Your task to perform on an android device: turn off improve location accuracy Image 0: 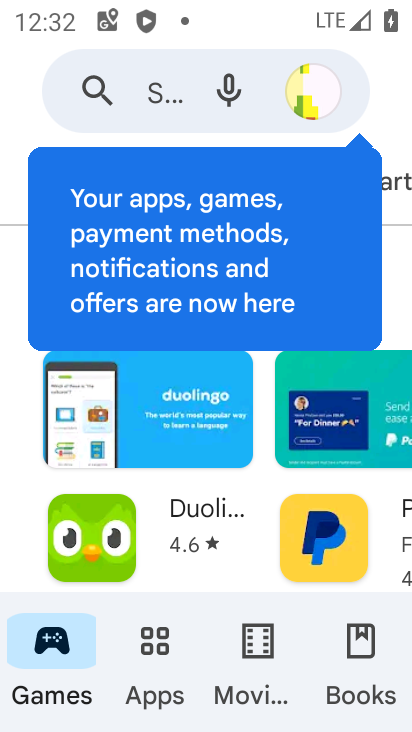
Step 0: press home button
Your task to perform on an android device: turn off improve location accuracy Image 1: 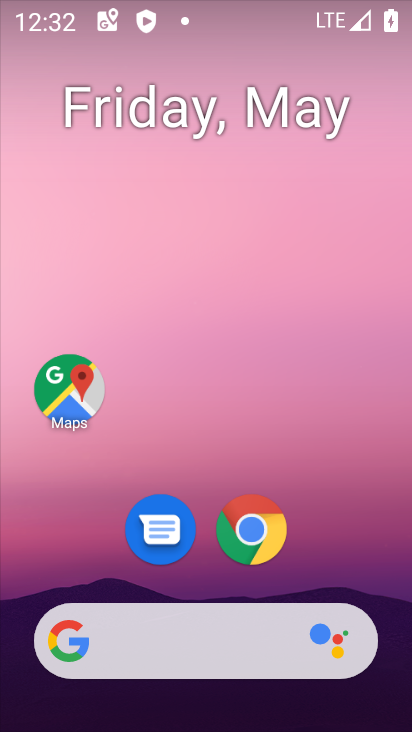
Step 1: drag from (318, 546) to (71, 103)
Your task to perform on an android device: turn off improve location accuracy Image 2: 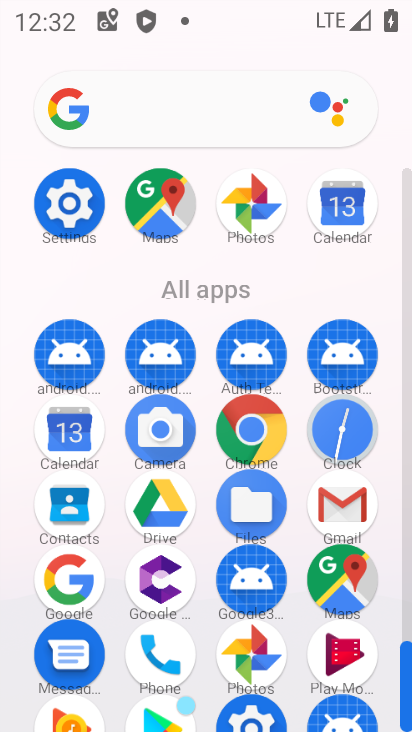
Step 2: click (66, 232)
Your task to perform on an android device: turn off improve location accuracy Image 3: 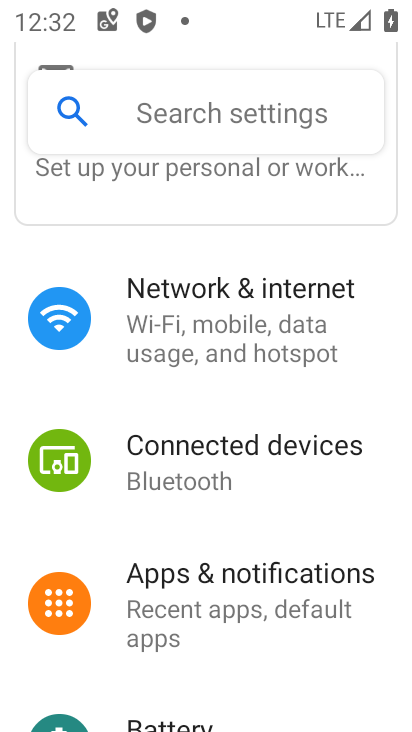
Step 3: drag from (217, 637) to (206, 315)
Your task to perform on an android device: turn off improve location accuracy Image 4: 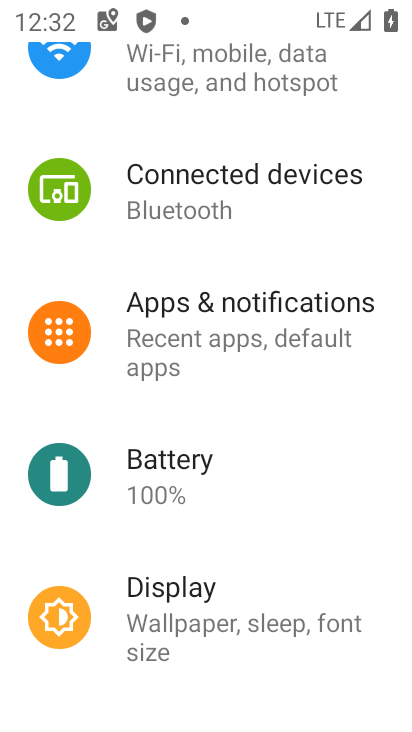
Step 4: drag from (313, 651) to (292, 281)
Your task to perform on an android device: turn off improve location accuracy Image 5: 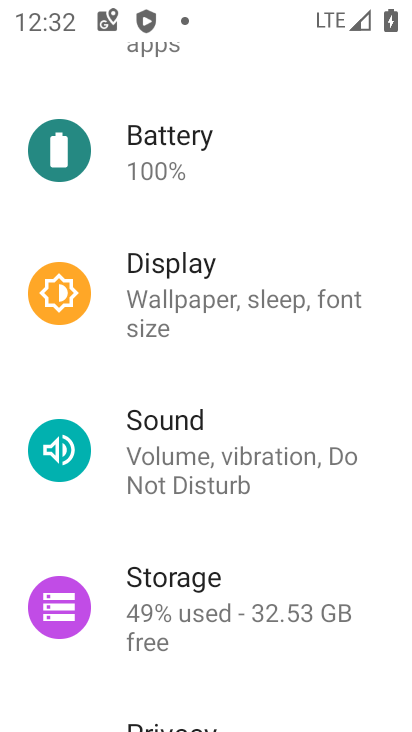
Step 5: drag from (302, 609) to (304, 296)
Your task to perform on an android device: turn off improve location accuracy Image 6: 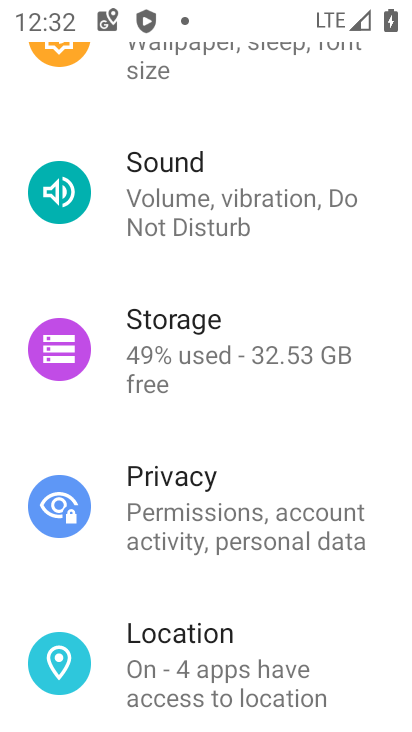
Step 6: click (158, 689)
Your task to perform on an android device: turn off improve location accuracy Image 7: 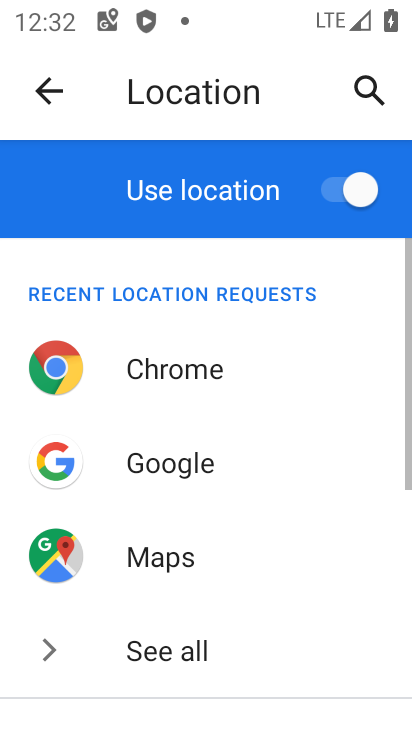
Step 7: drag from (162, 686) to (150, 296)
Your task to perform on an android device: turn off improve location accuracy Image 8: 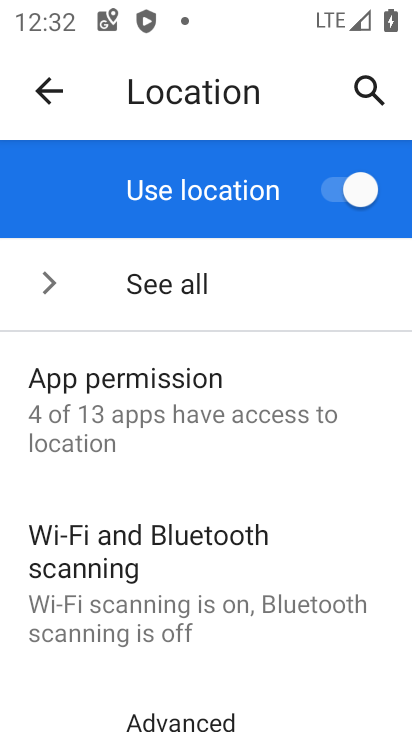
Step 8: drag from (167, 635) to (158, 344)
Your task to perform on an android device: turn off improve location accuracy Image 9: 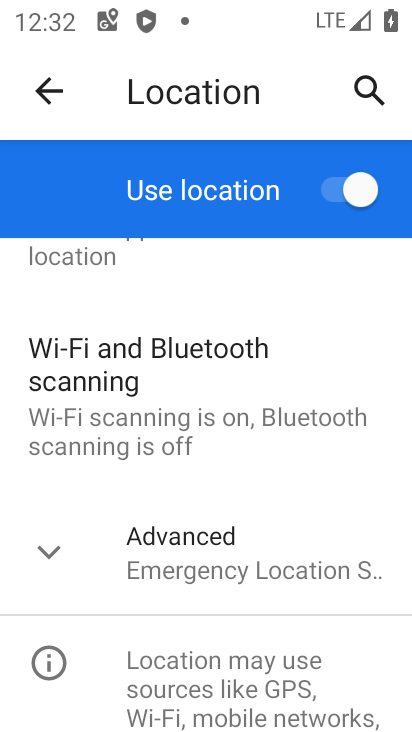
Step 9: click (185, 568)
Your task to perform on an android device: turn off improve location accuracy Image 10: 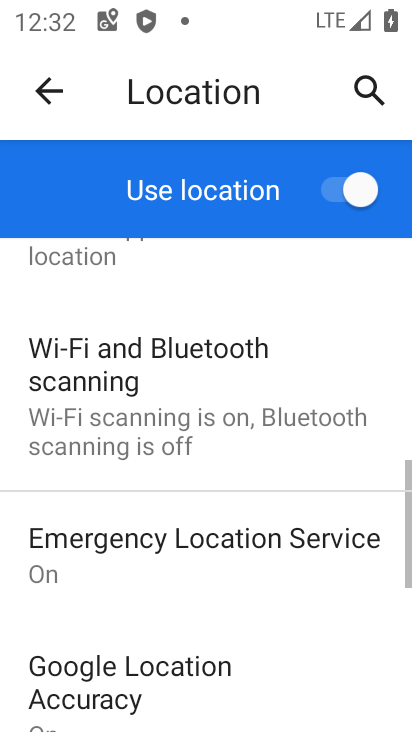
Step 10: drag from (210, 618) to (199, 389)
Your task to perform on an android device: turn off improve location accuracy Image 11: 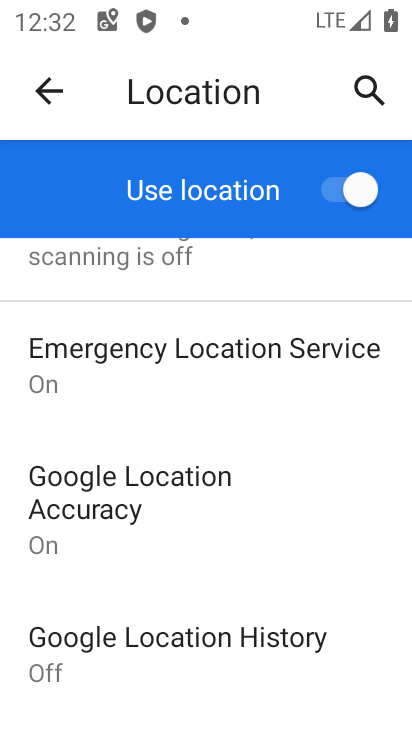
Step 11: click (144, 501)
Your task to perform on an android device: turn off improve location accuracy Image 12: 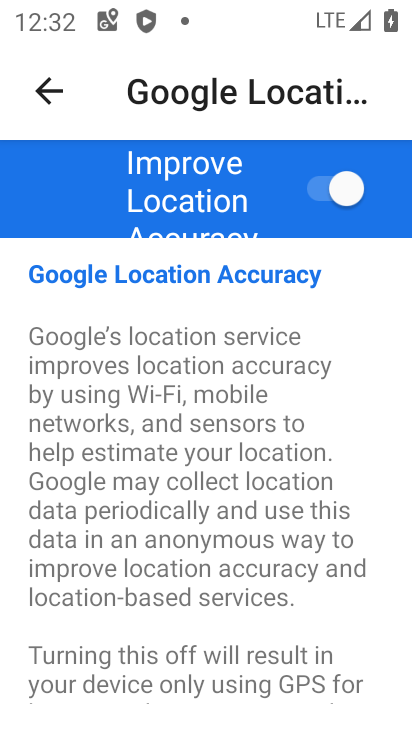
Step 12: click (340, 186)
Your task to perform on an android device: turn off improve location accuracy Image 13: 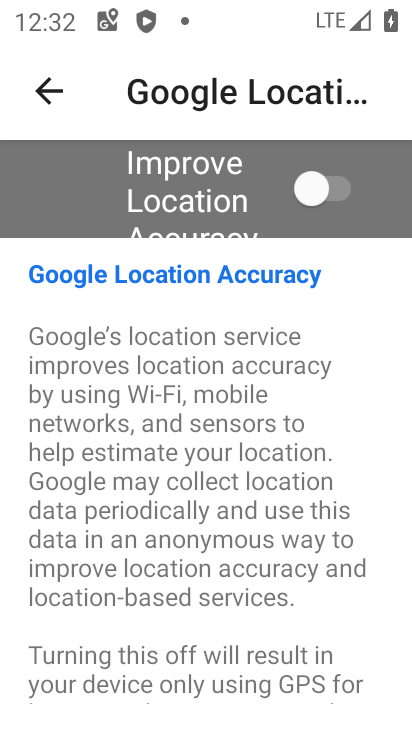
Step 13: task complete